Your task to perform on an android device: change notification settings in the gmail app Image 0: 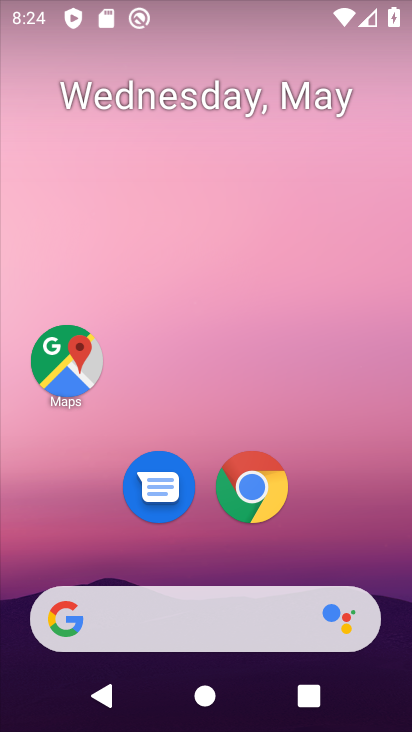
Step 0: drag from (206, 560) to (291, 89)
Your task to perform on an android device: change notification settings in the gmail app Image 1: 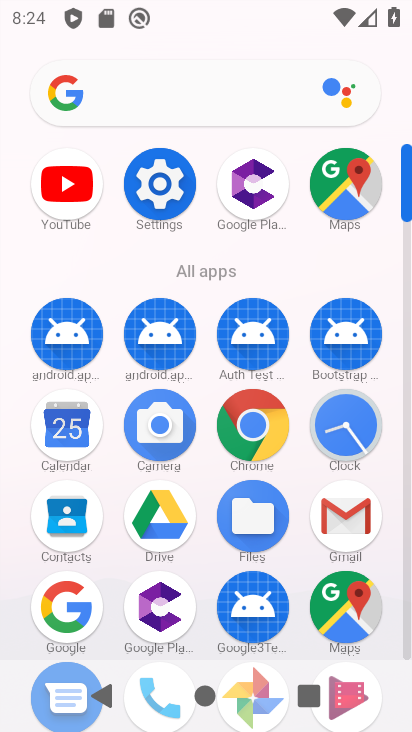
Step 1: click (346, 505)
Your task to perform on an android device: change notification settings in the gmail app Image 2: 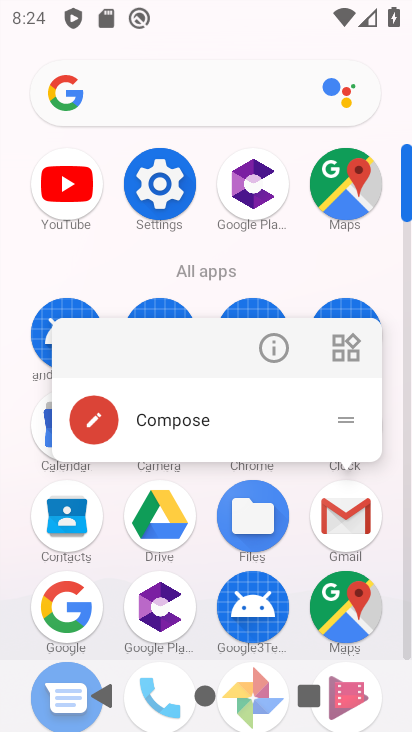
Step 2: click (349, 521)
Your task to perform on an android device: change notification settings in the gmail app Image 3: 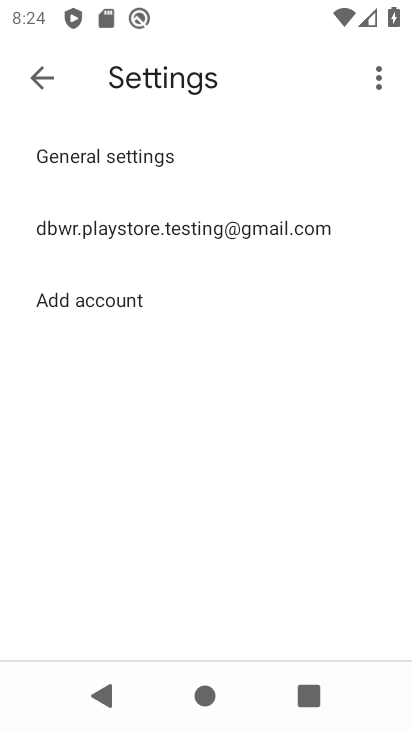
Step 3: click (160, 150)
Your task to perform on an android device: change notification settings in the gmail app Image 4: 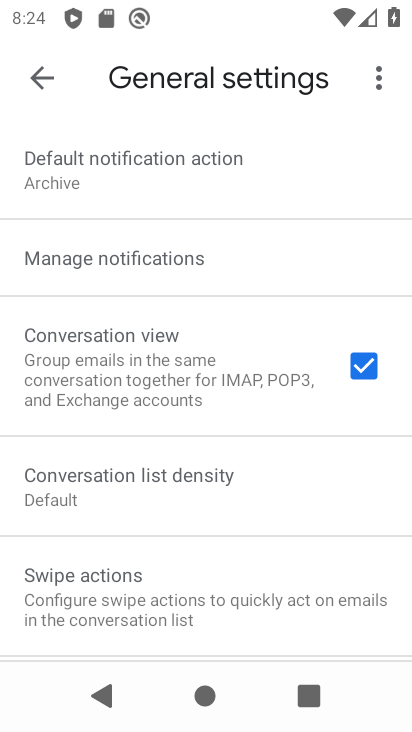
Step 4: click (184, 274)
Your task to perform on an android device: change notification settings in the gmail app Image 5: 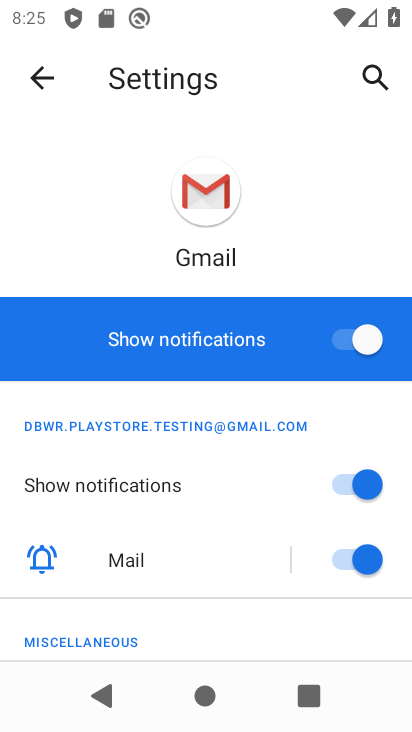
Step 5: drag from (219, 632) to (274, 282)
Your task to perform on an android device: change notification settings in the gmail app Image 6: 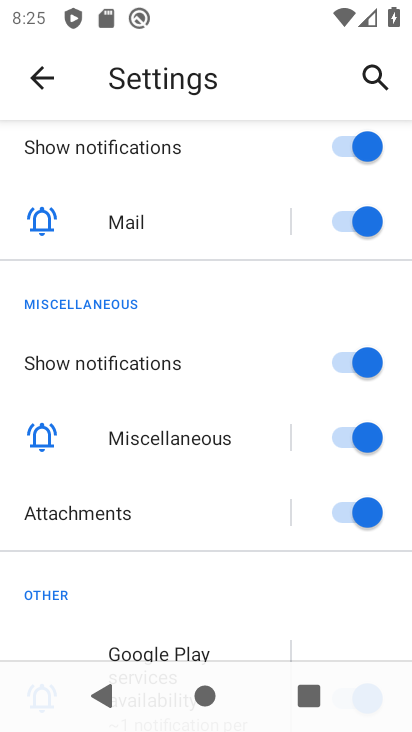
Step 6: drag from (241, 247) to (227, 583)
Your task to perform on an android device: change notification settings in the gmail app Image 7: 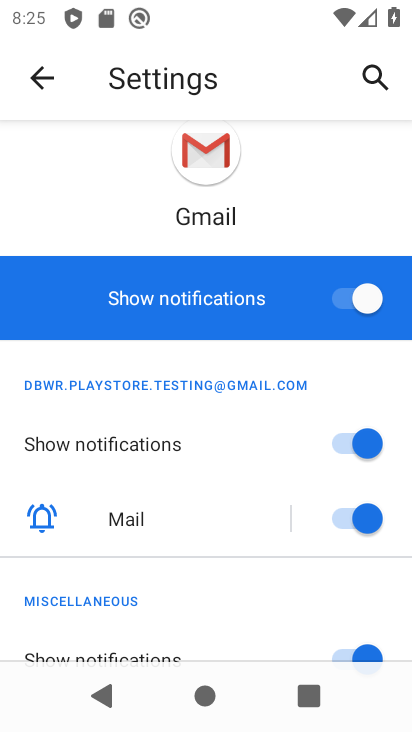
Step 7: click (351, 305)
Your task to perform on an android device: change notification settings in the gmail app Image 8: 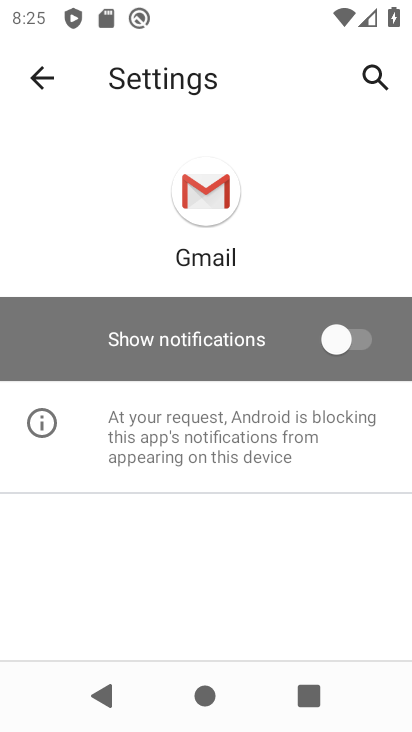
Step 8: task complete